Your task to perform on an android device: open device folders in google photos Image 0: 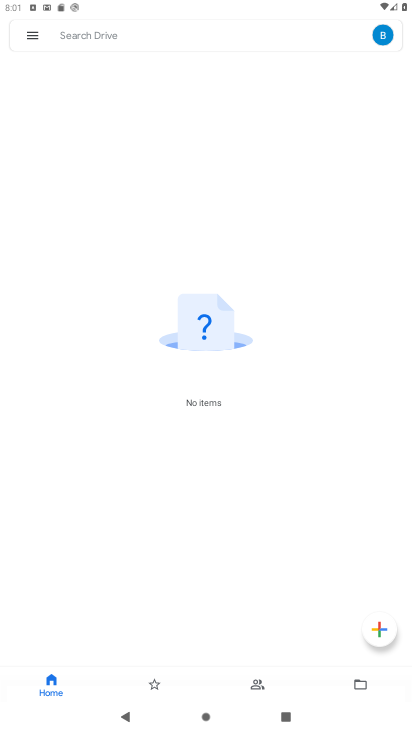
Step 0: press home button
Your task to perform on an android device: open device folders in google photos Image 1: 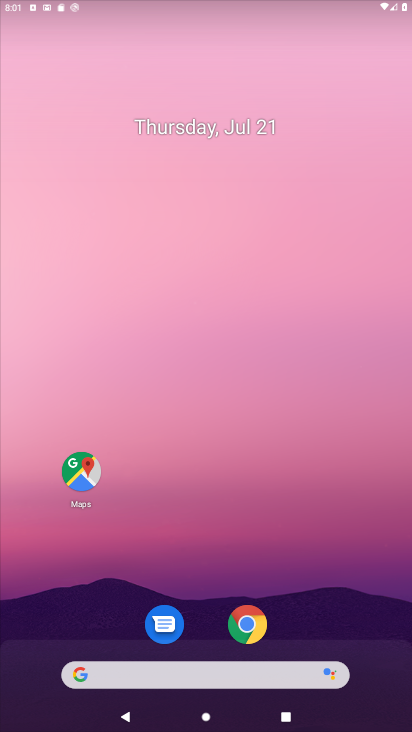
Step 1: drag from (36, 541) to (224, 104)
Your task to perform on an android device: open device folders in google photos Image 2: 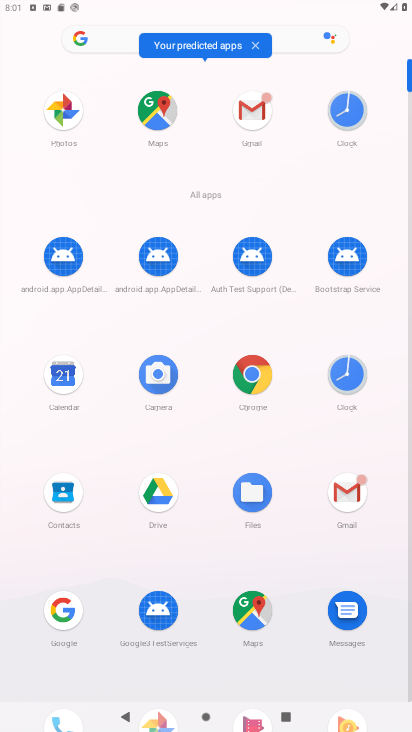
Step 2: click (60, 115)
Your task to perform on an android device: open device folders in google photos Image 3: 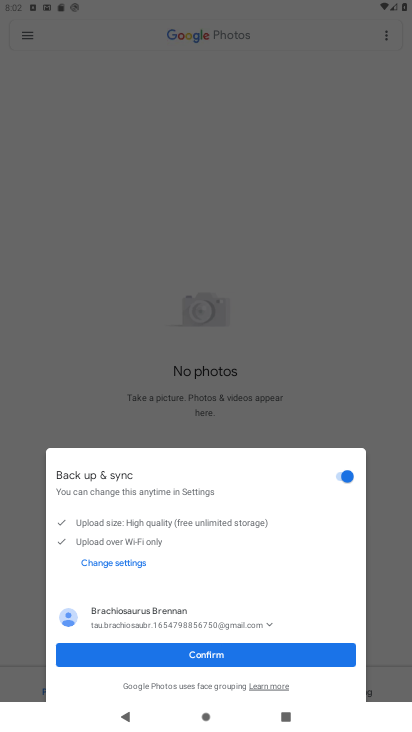
Step 3: click (169, 658)
Your task to perform on an android device: open device folders in google photos Image 4: 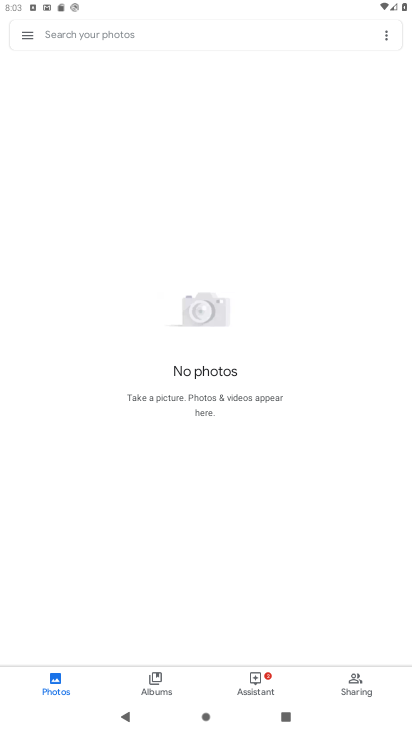
Step 4: click (18, 29)
Your task to perform on an android device: open device folders in google photos Image 5: 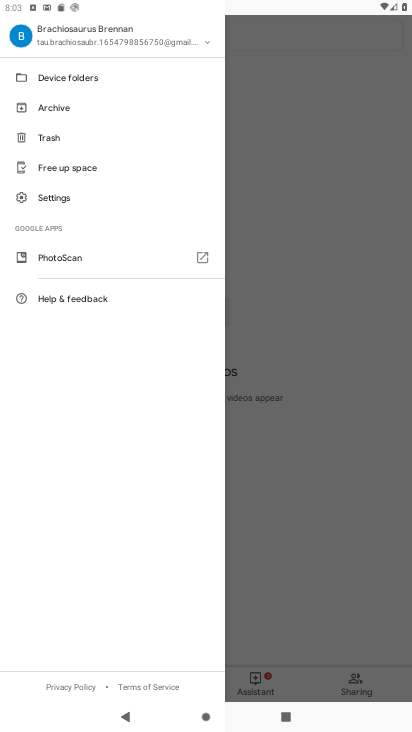
Step 5: click (79, 78)
Your task to perform on an android device: open device folders in google photos Image 6: 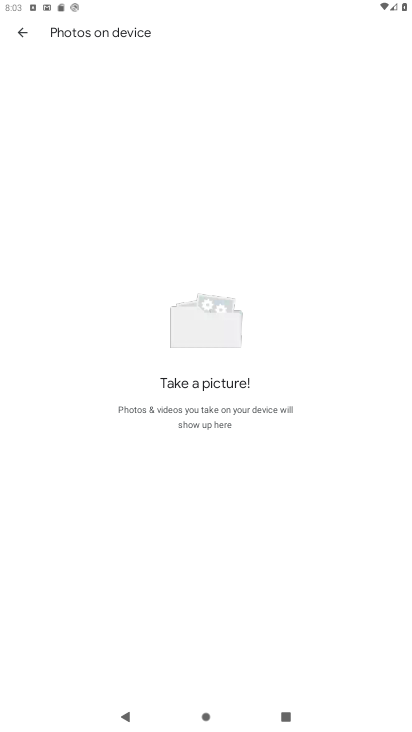
Step 6: task complete